Your task to perform on an android device: turn on showing notifications on the lock screen Image 0: 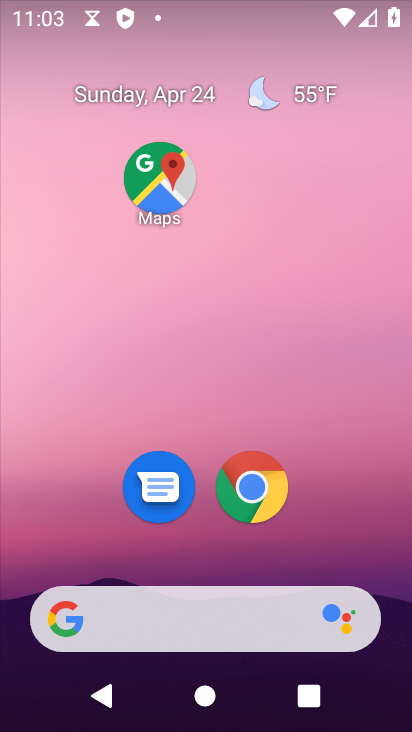
Step 0: drag from (54, 561) to (282, 199)
Your task to perform on an android device: turn on showing notifications on the lock screen Image 1: 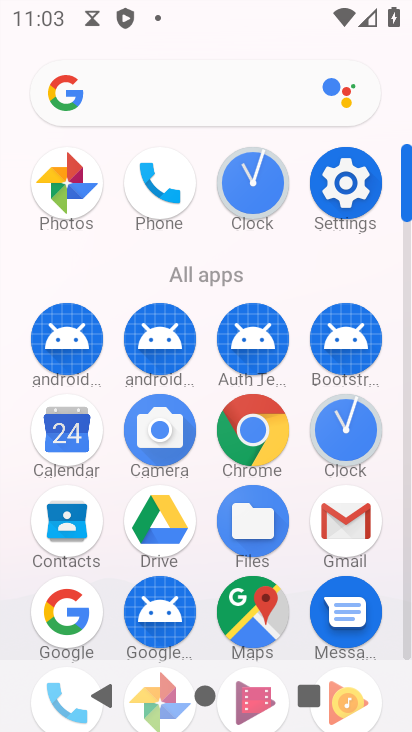
Step 1: click (359, 212)
Your task to perform on an android device: turn on showing notifications on the lock screen Image 2: 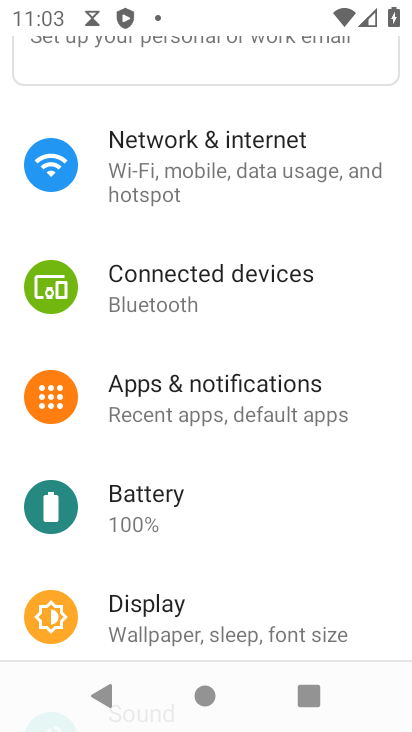
Step 2: click (259, 407)
Your task to perform on an android device: turn on showing notifications on the lock screen Image 3: 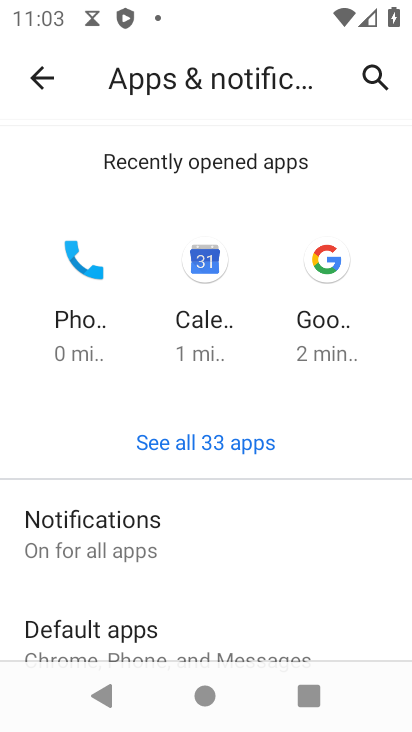
Step 3: click (131, 540)
Your task to perform on an android device: turn on showing notifications on the lock screen Image 4: 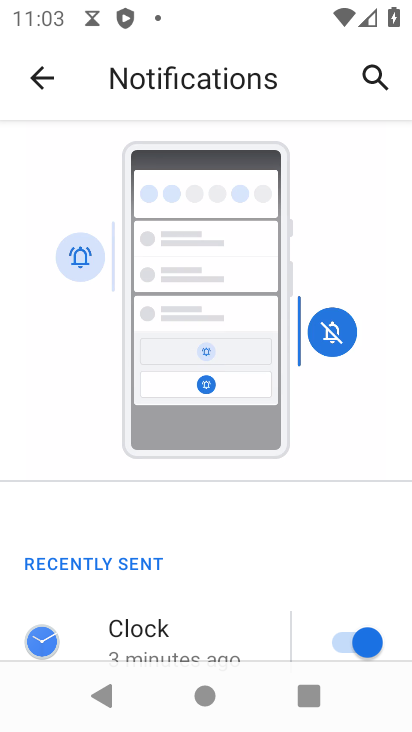
Step 4: drag from (122, 590) to (236, 162)
Your task to perform on an android device: turn on showing notifications on the lock screen Image 5: 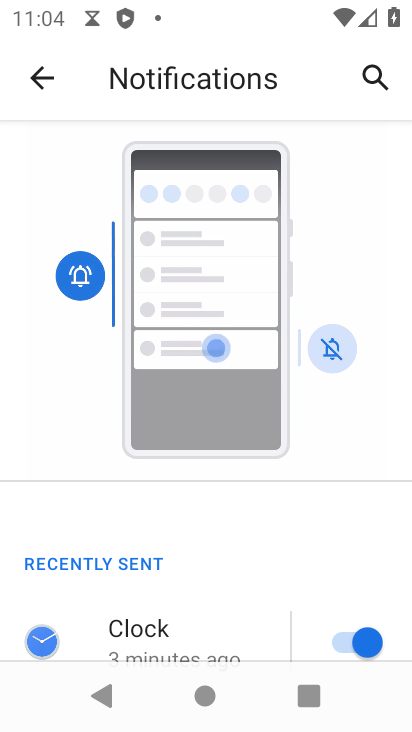
Step 5: drag from (72, 634) to (184, 239)
Your task to perform on an android device: turn on showing notifications on the lock screen Image 6: 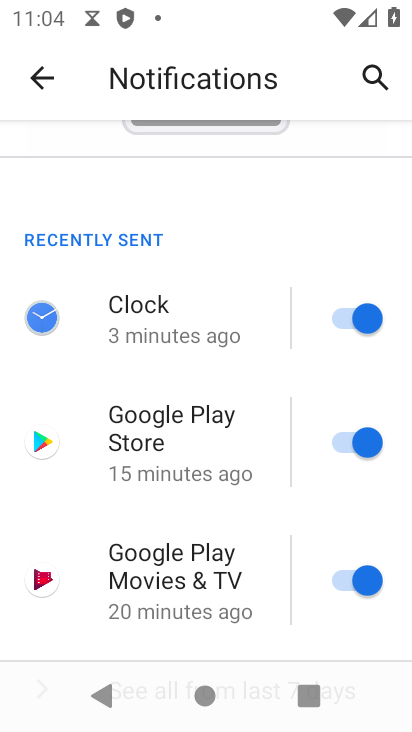
Step 6: drag from (102, 603) to (294, 272)
Your task to perform on an android device: turn on showing notifications on the lock screen Image 7: 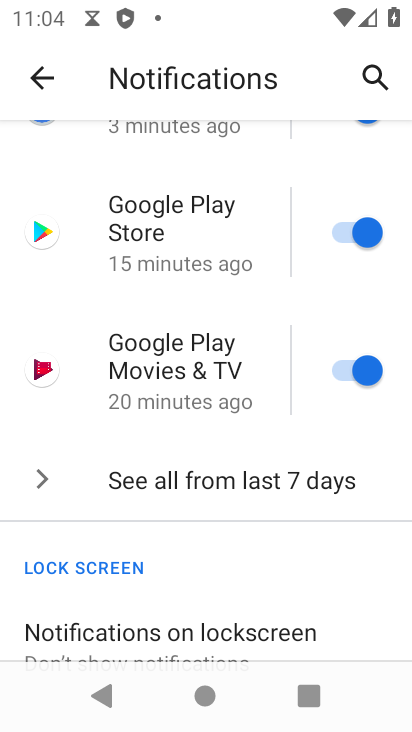
Step 7: click (198, 642)
Your task to perform on an android device: turn on showing notifications on the lock screen Image 8: 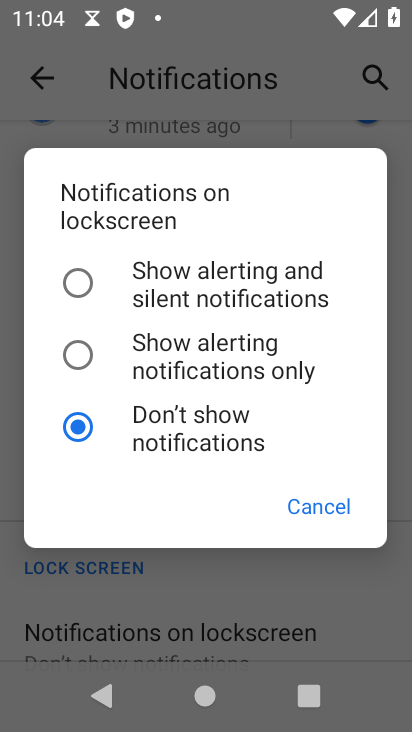
Step 8: click (81, 295)
Your task to perform on an android device: turn on showing notifications on the lock screen Image 9: 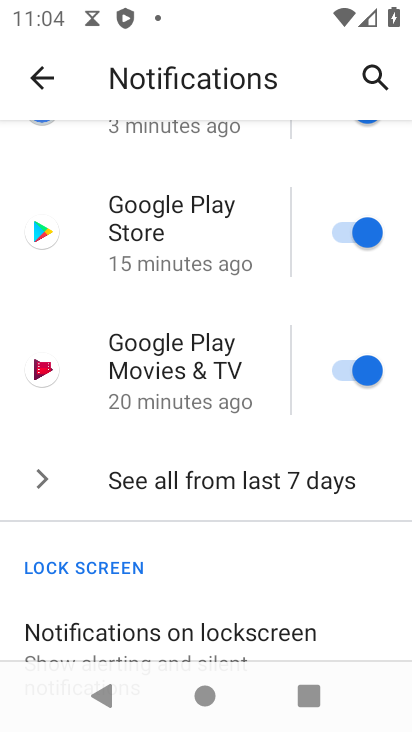
Step 9: click (279, 627)
Your task to perform on an android device: turn on showing notifications on the lock screen Image 10: 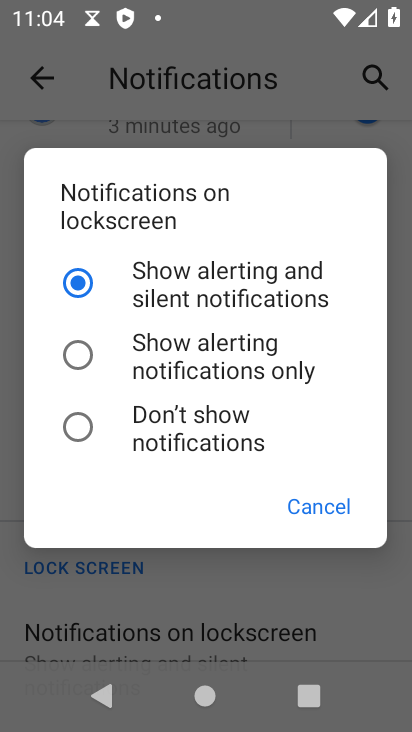
Step 10: task complete